Your task to perform on an android device: Clear the shopping cart on costco. Add energizer triple a to the cart on costco Image 0: 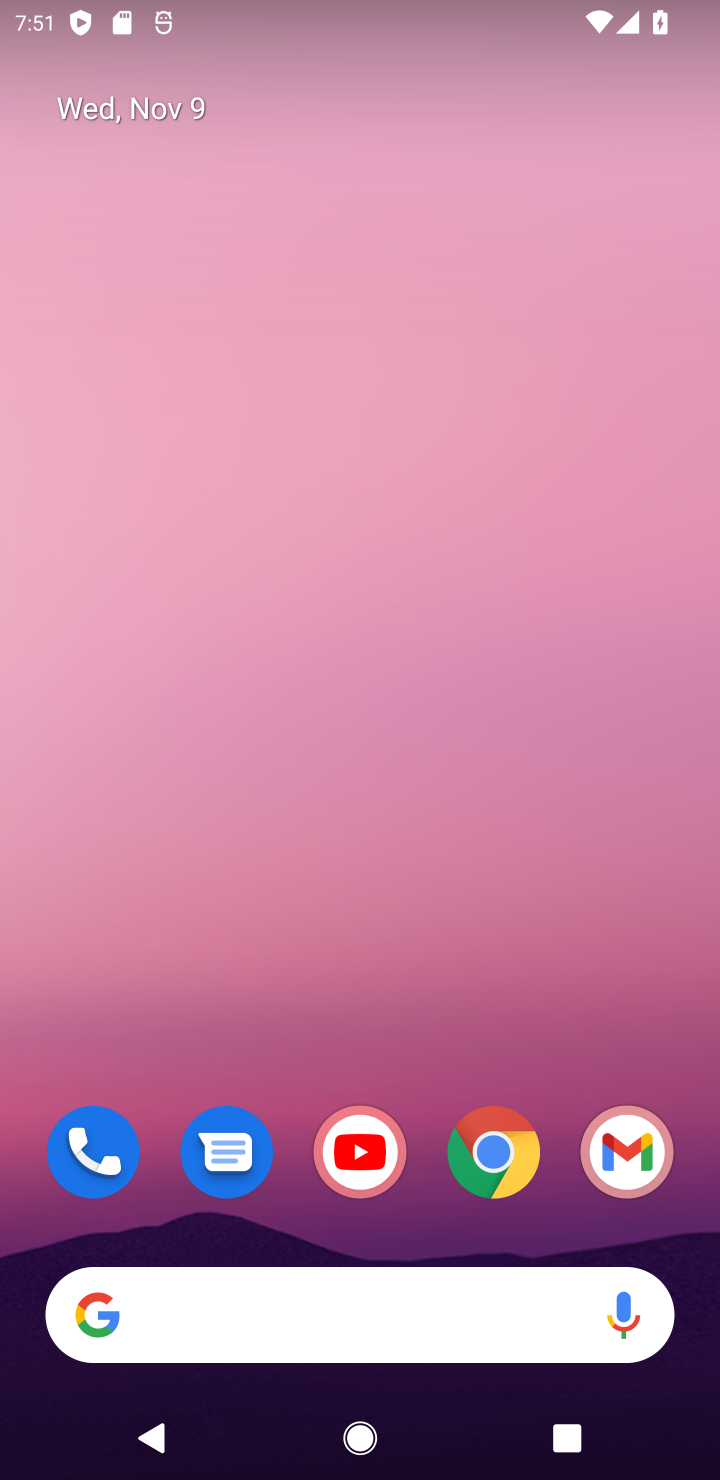
Step 0: click (476, 1163)
Your task to perform on an android device: Clear the shopping cart on costco. Add energizer triple a to the cart on costco Image 1: 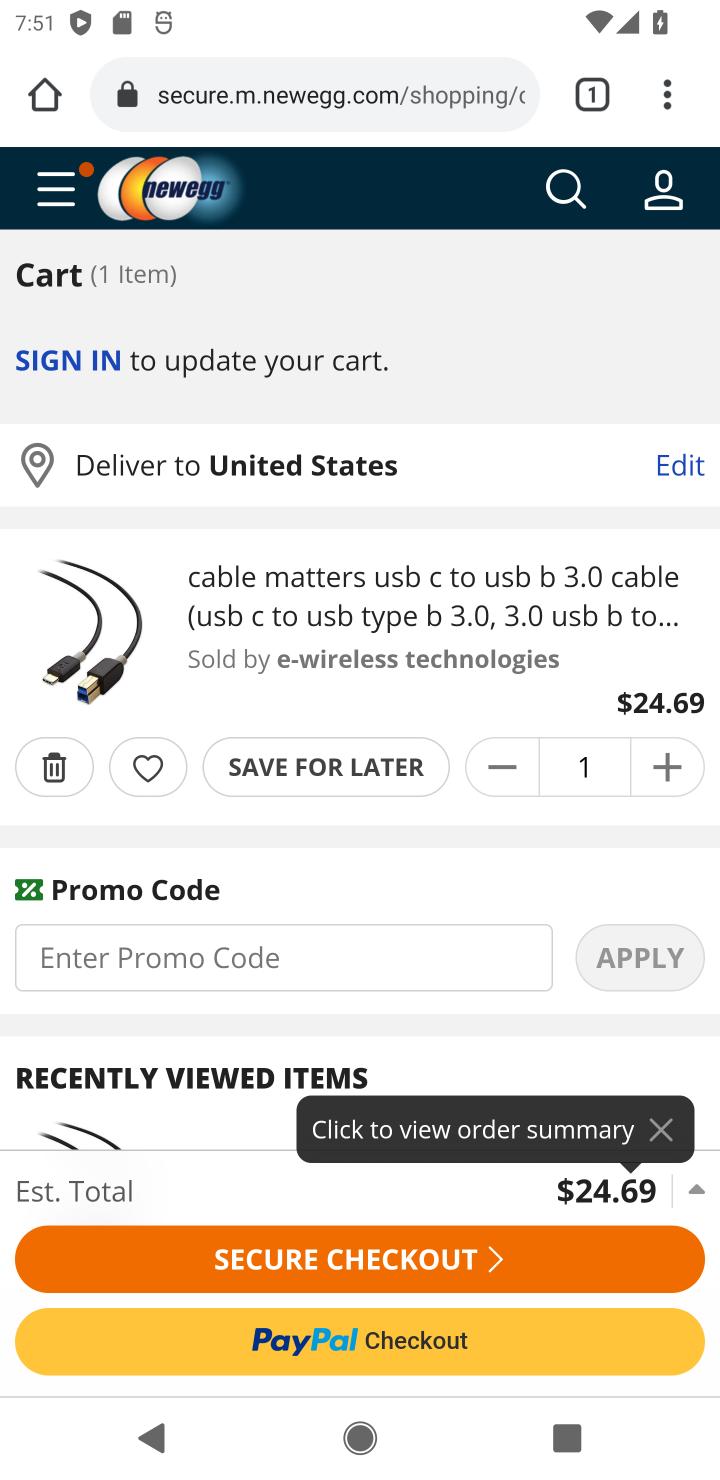
Step 1: click (371, 92)
Your task to perform on an android device: Clear the shopping cart on costco. Add energizer triple a to the cart on costco Image 2: 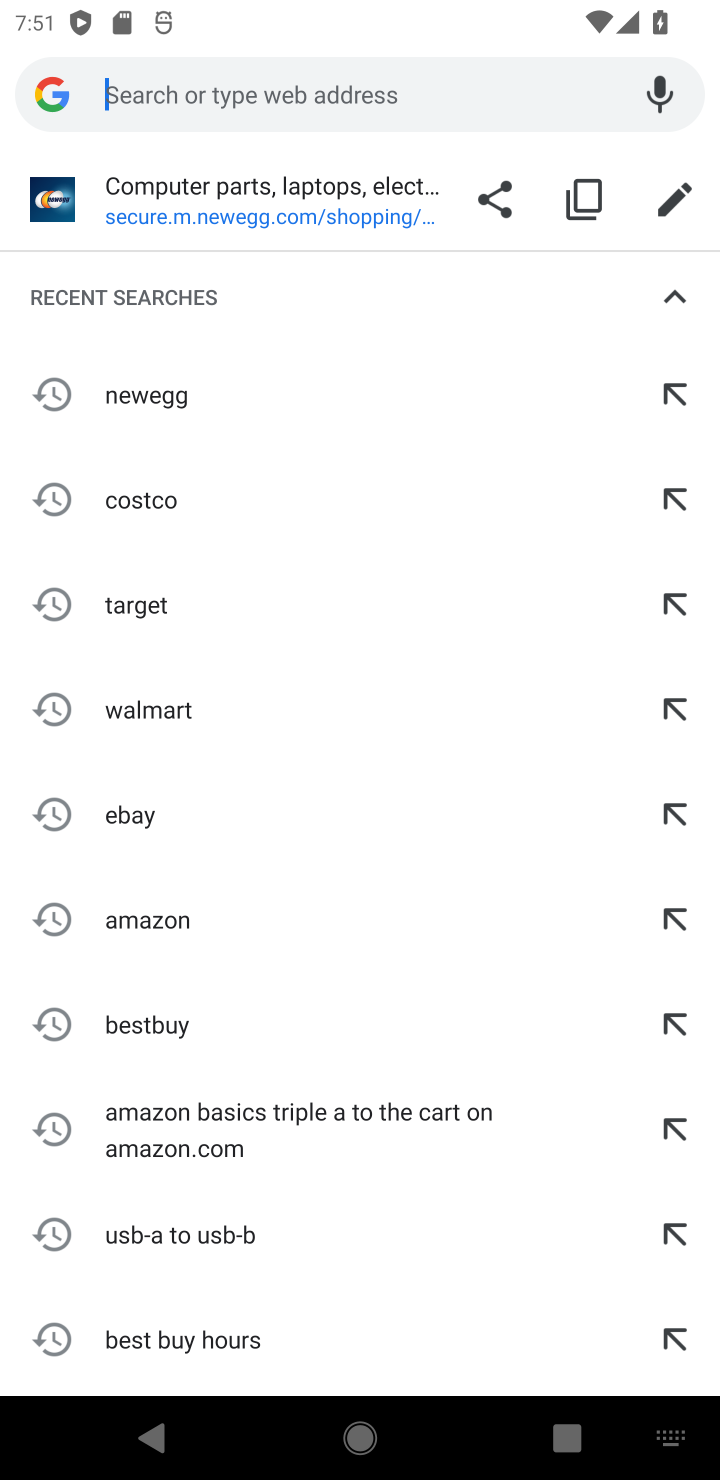
Step 2: type " costco"
Your task to perform on an android device: Clear the shopping cart on costco. Add energizer triple a to the cart on costco Image 3: 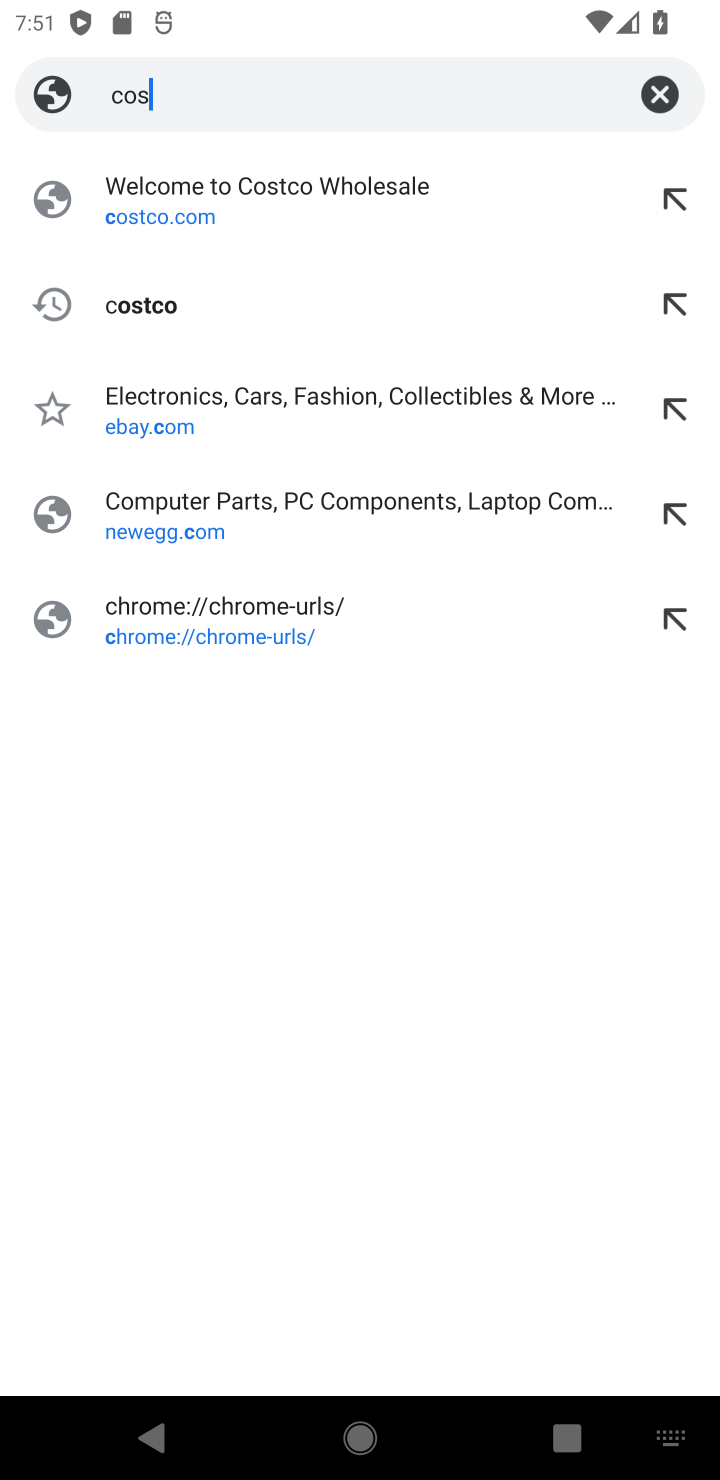
Step 3: press enter
Your task to perform on an android device: Clear the shopping cart on costco. Add energizer triple a to the cart on costco Image 4: 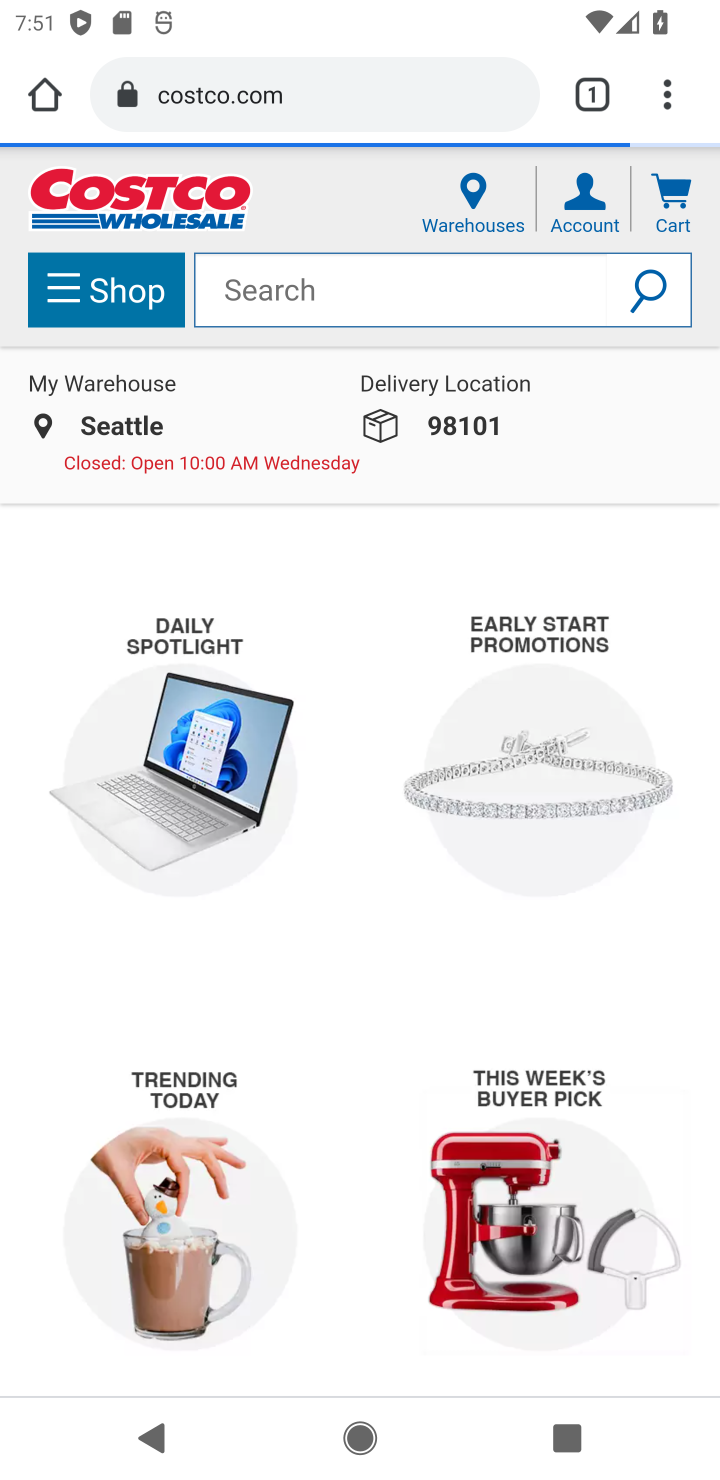
Step 4: click (380, 299)
Your task to perform on an android device: Clear the shopping cart on costco. Add energizer triple a to the cart on costco Image 5: 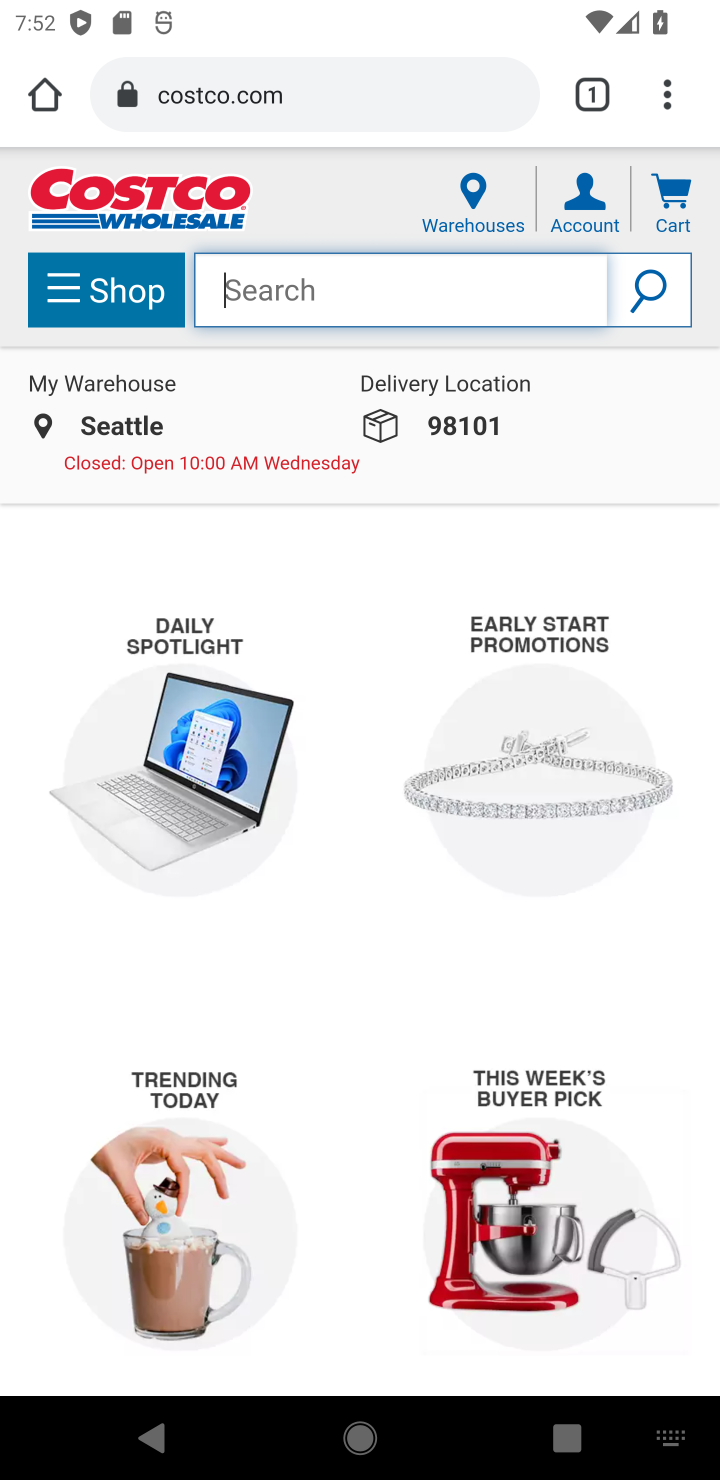
Step 5: type " energizer triple a"
Your task to perform on an android device: Clear the shopping cart on costco. Add energizer triple a to the cart on costco Image 6: 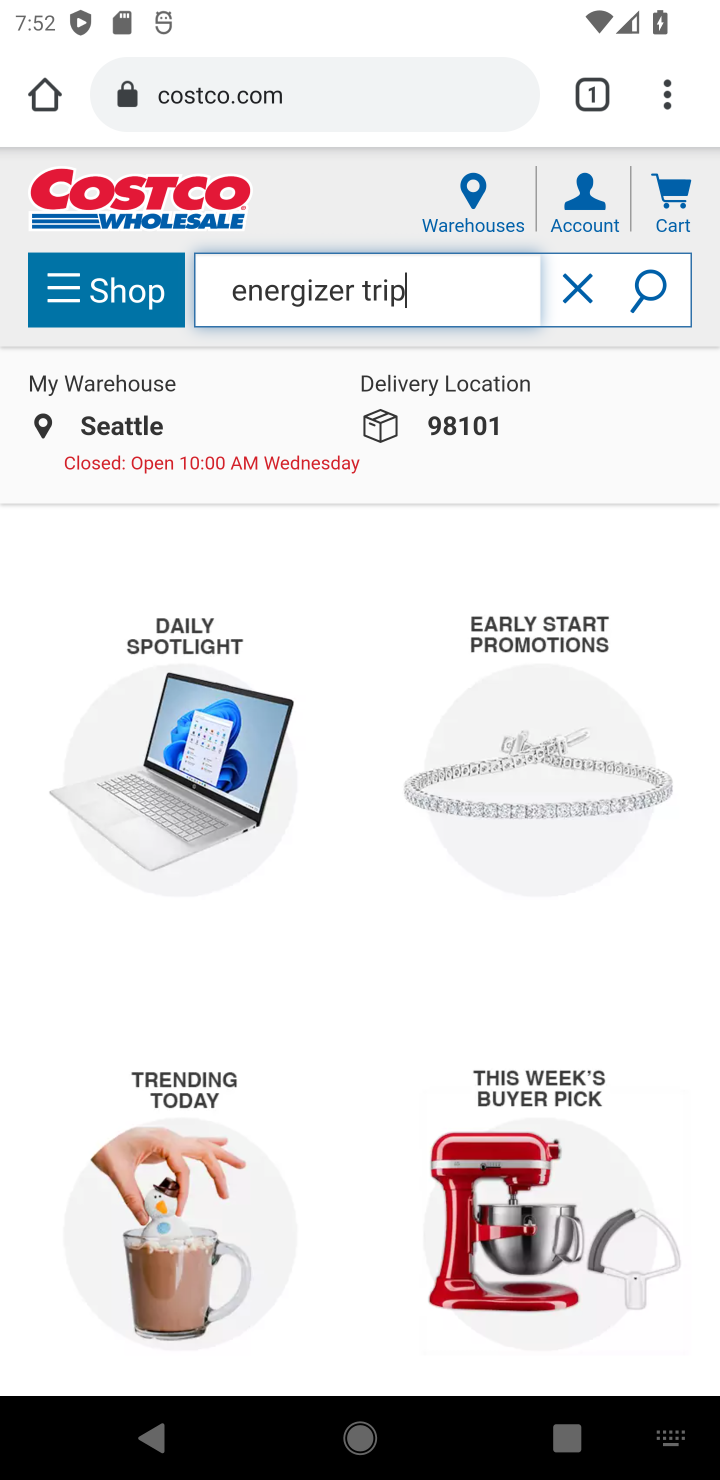
Step 6: press enter
Your task to perform on an android device: Clear the shopping cart on costco. Add energizer triple a to the cart on costco Image 7: 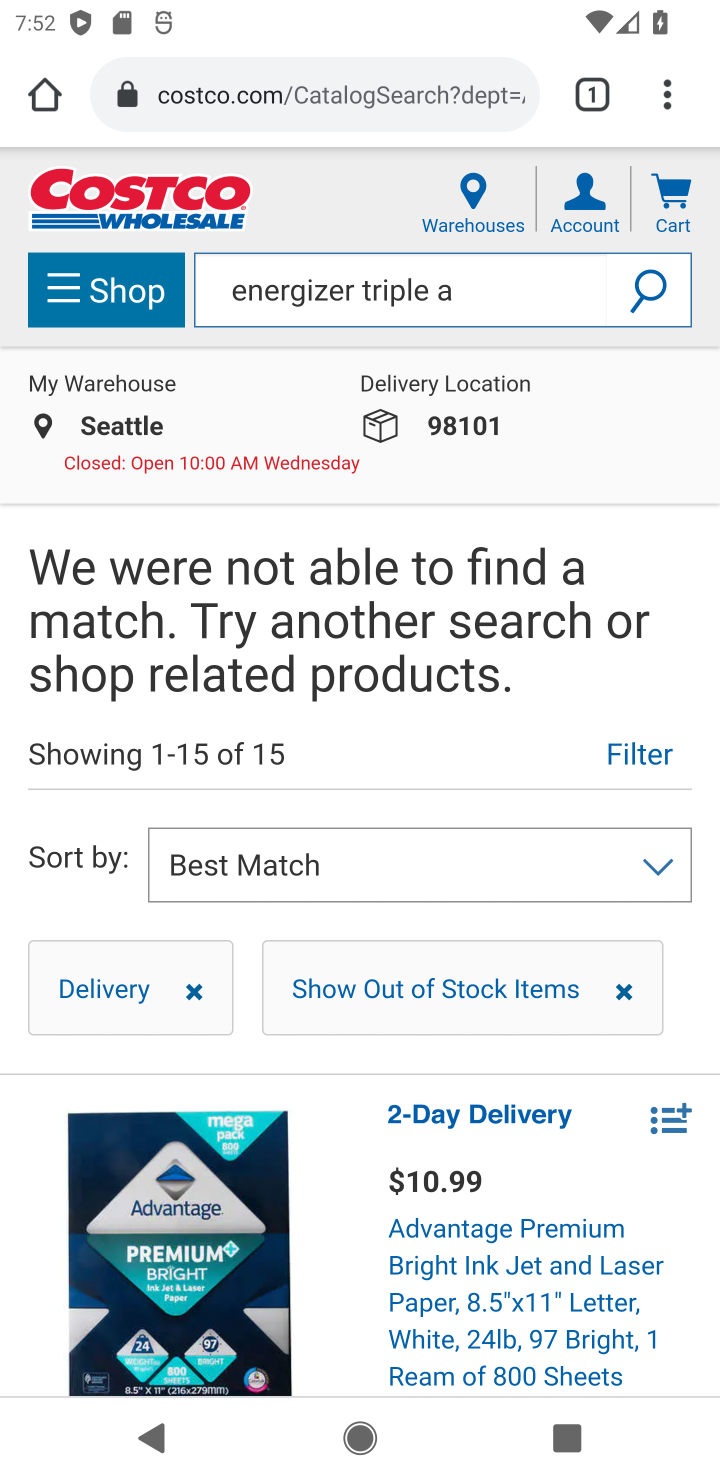
Step 7: task complete